Your task to perform on an android device: set the stopwatch Image 0: 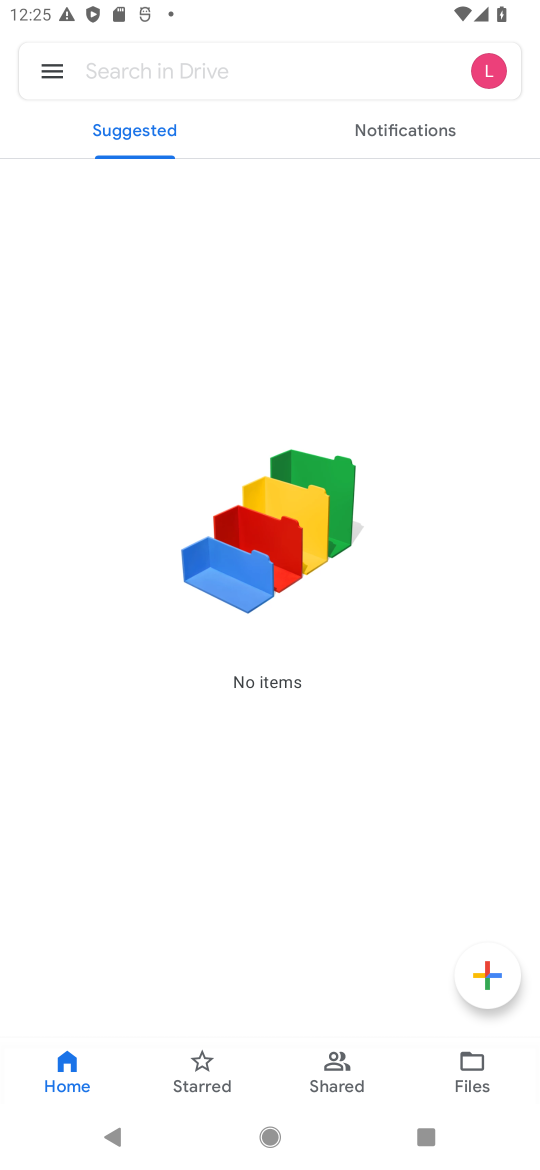
Step 0: press home button
Your task to perform on an android device: set the stopwatch Image 1: 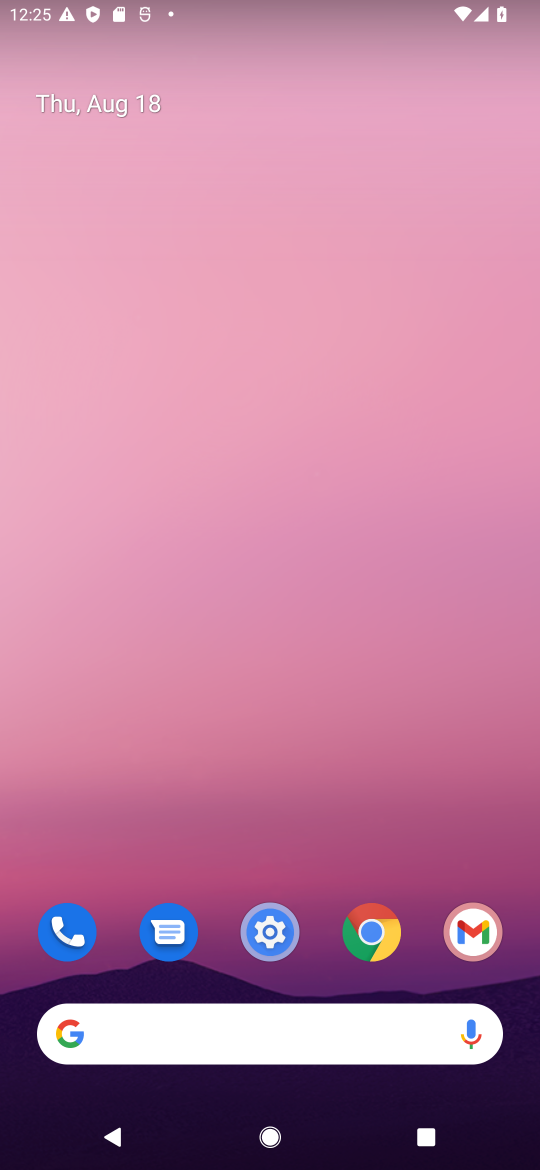
Step 1: drag from (335, 811) to (219, 216)
Your task to perform on an android device: set the stopwatch Image 2: 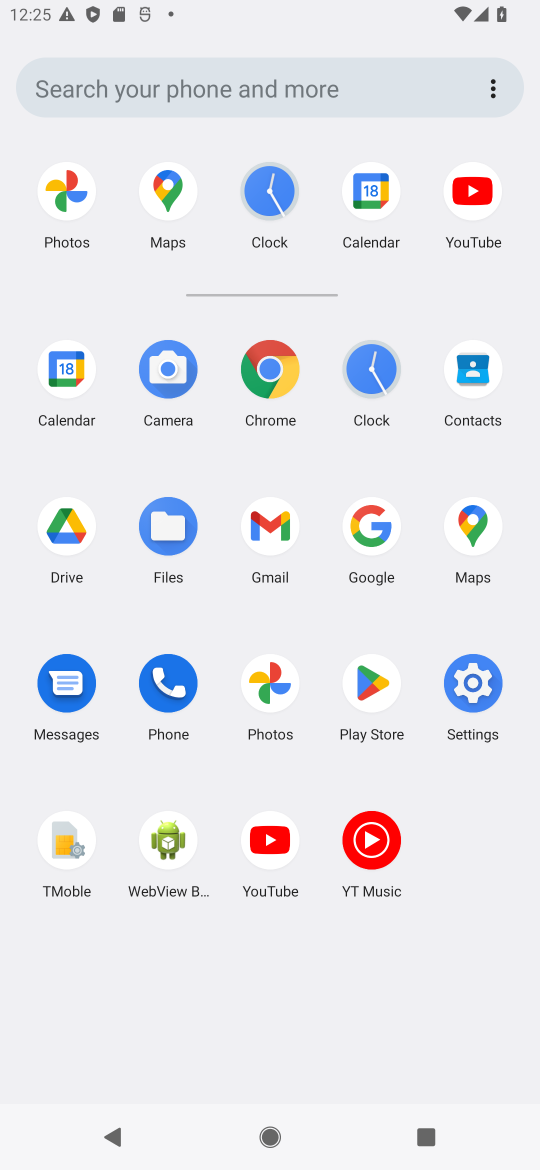
Step 2: click (271, 192)
Your task to perform on an android device: set the stopwatch Image 3: 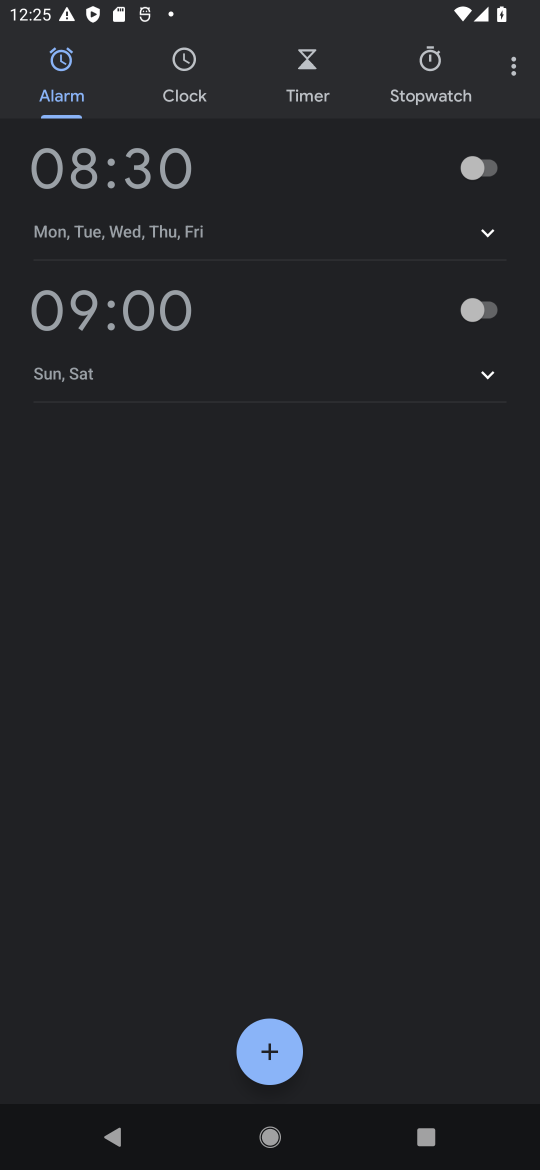
Step 3: click (426, 57)
Your task to perform on an android device: set the stopwatch Image 4: 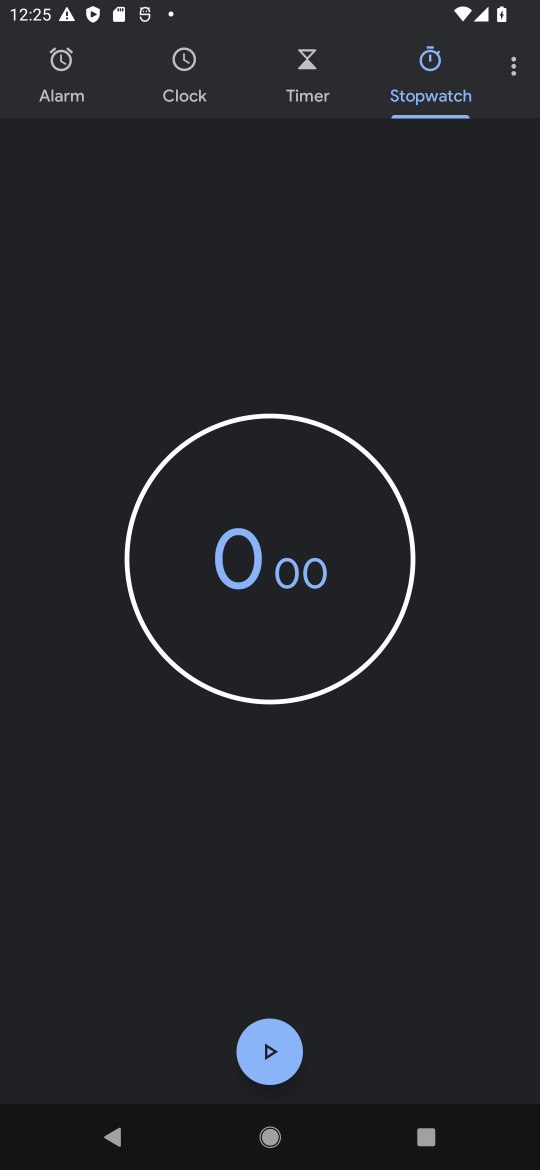
Step 4: task complete